Your task to perform on an android device: When is my next meeting? Image 0: 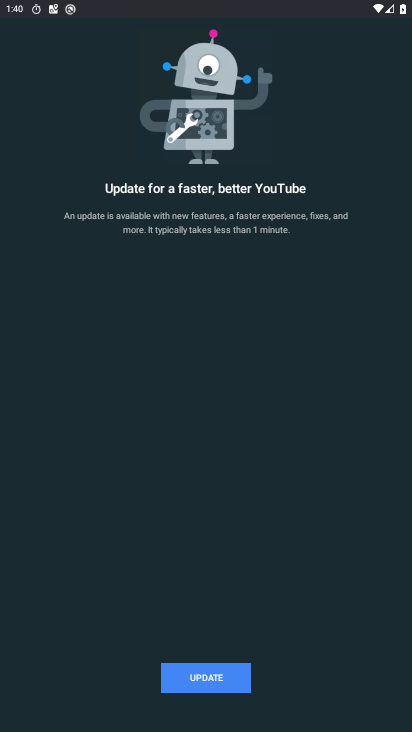
Step 0: press home button
Your task to perform on an android device: When is my next meeting? Image 1: 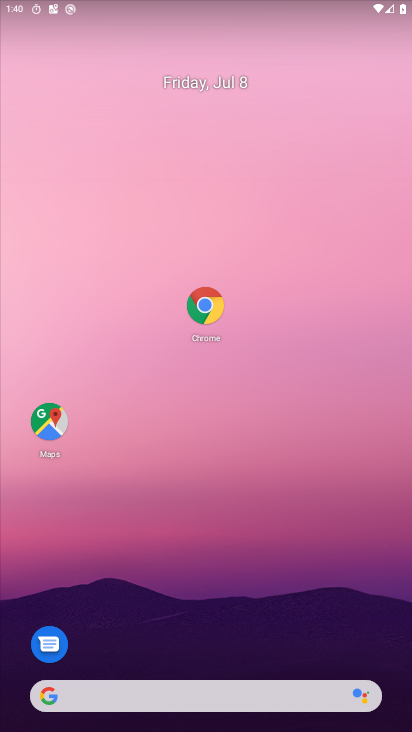
Step 1: drag from (160, 670) to (158, 302)
Your task to perform on an android device: When is my next meeting? Image 2: 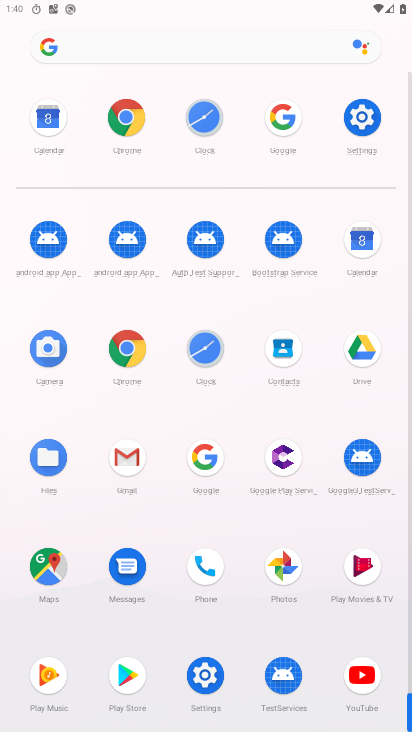
Step 2: click (356, 238)
Your task to perform on an android device: When is my next meeting? Image 3: 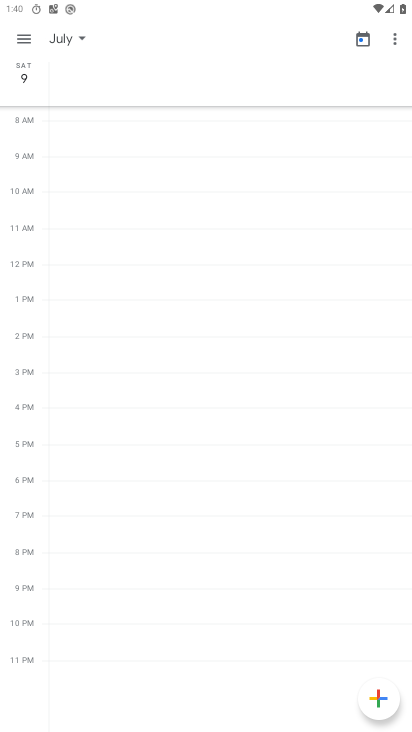
Step 3: click (66, 35)
Your task to perform on an android device: When is my next meeting? Image 4: 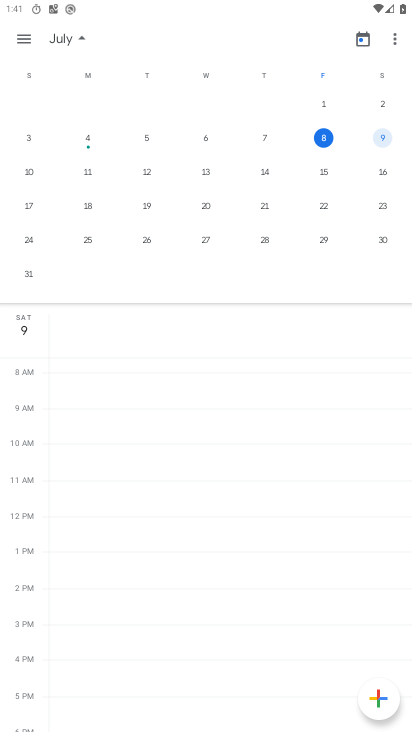
Step 4: click (381, 135)
Your task to perform on an android device: When is my next meeting? Image 5: 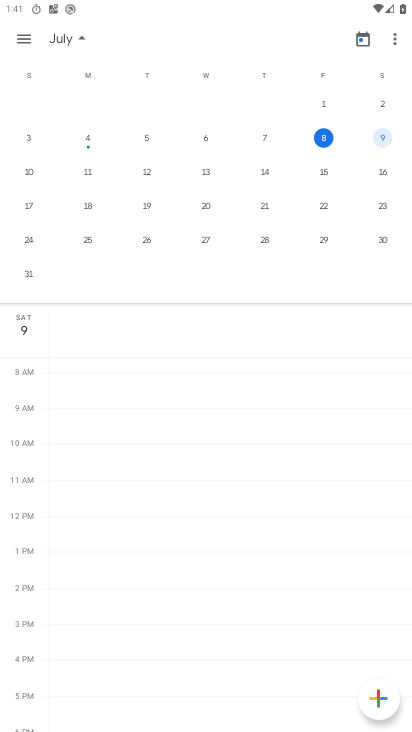
Step 5: click (21, 38)
Your task to perform on an android device: When is my next meeting? Image 6: 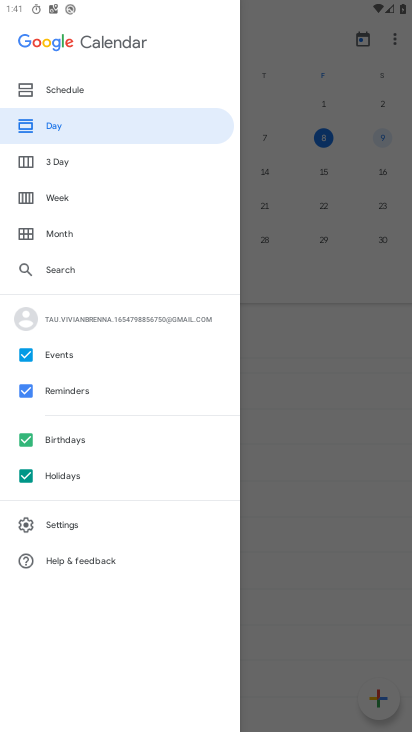
Step 6: click (70, 89)
Your task to perform on an android device: When is my next meeting? Image 7: 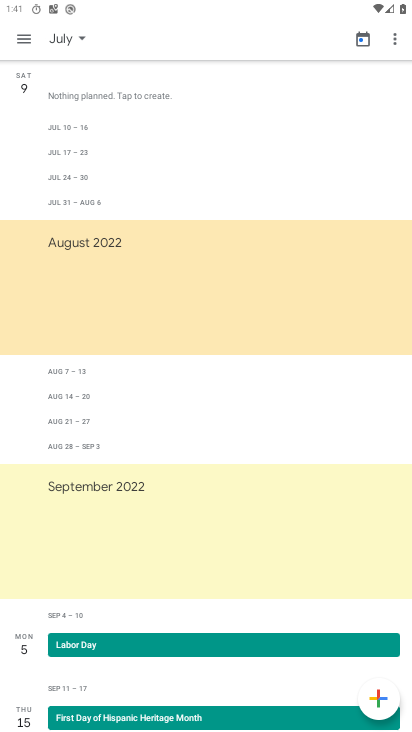
Step 7: task complete